Your task to perform on an android device: change the clock style Image 0: 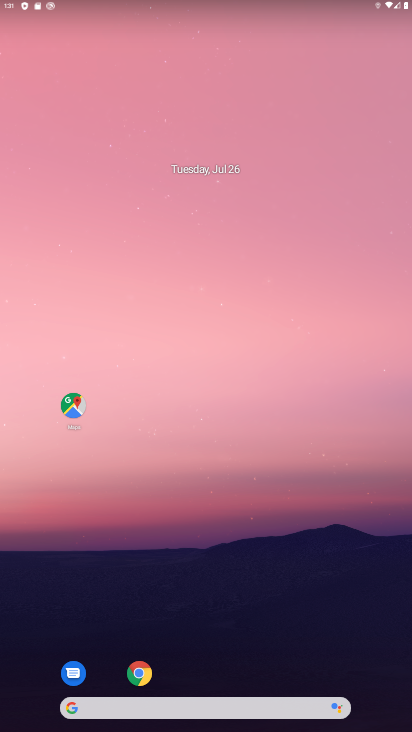
Step 0: drag from (311, 650) to (204, 209)
Your task to perform on an android device: change the clock style Image 1: 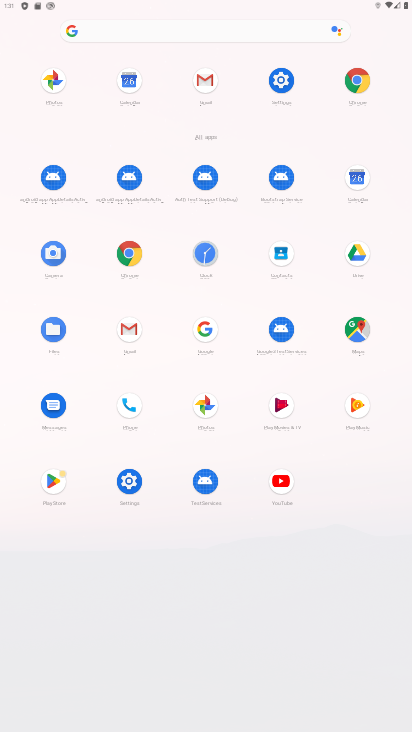
Step 1: click (206, 255)
Your task to perform on an android device: change the clock style Image 2: 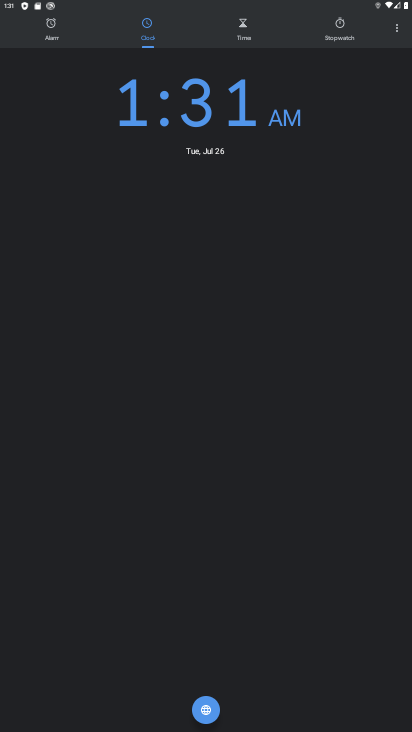
Step 2: click (393, 33)
Your task to perform on an android device: change the clock style Image 3: 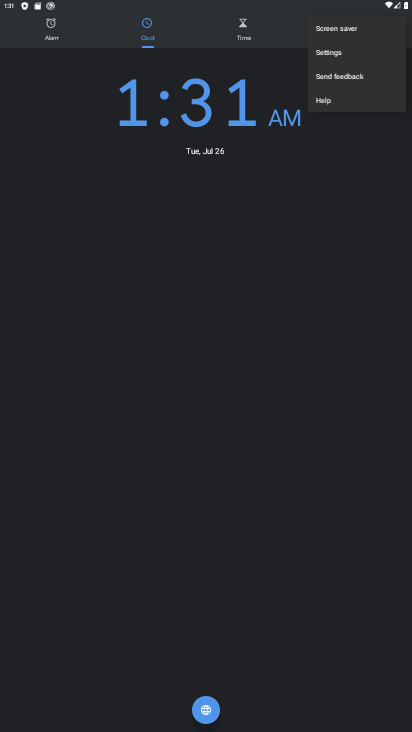
Step 3: click (359, 56)
Your task to perform on an android device: change the clock style Image 4: 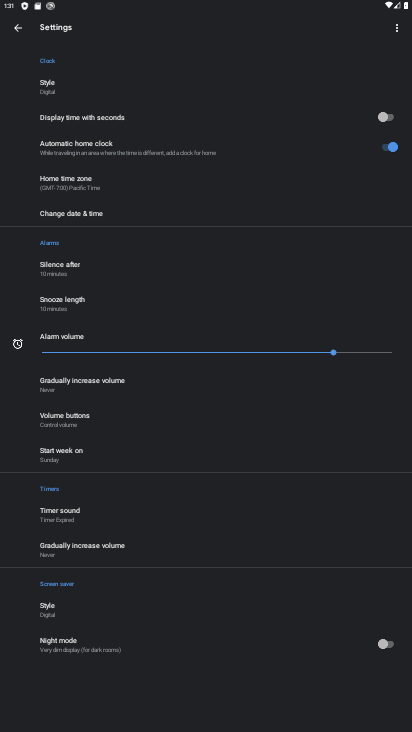
Step 4: click (55, 91)
Your task to perform on an android device: change the clock style Image 5: 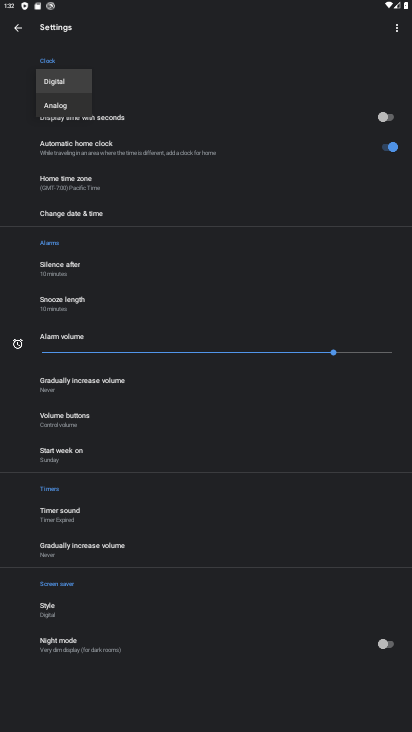
Step 5: click (60, 106)
Your task to perform on an android device: change the clock style Image 6: 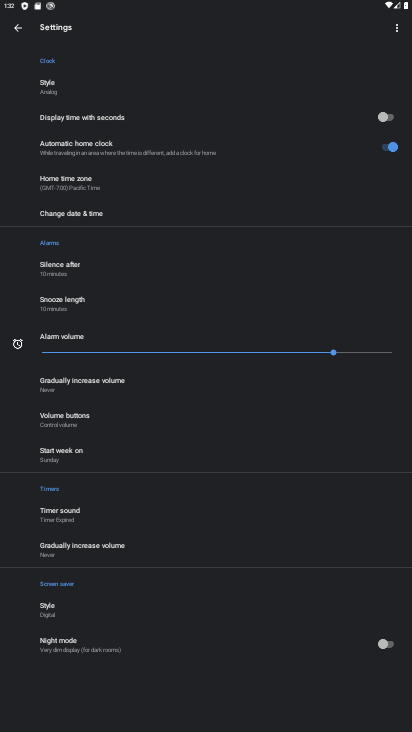
Step 6: task complete